Your task to perform on an android device: Open Google Maps Image 0: 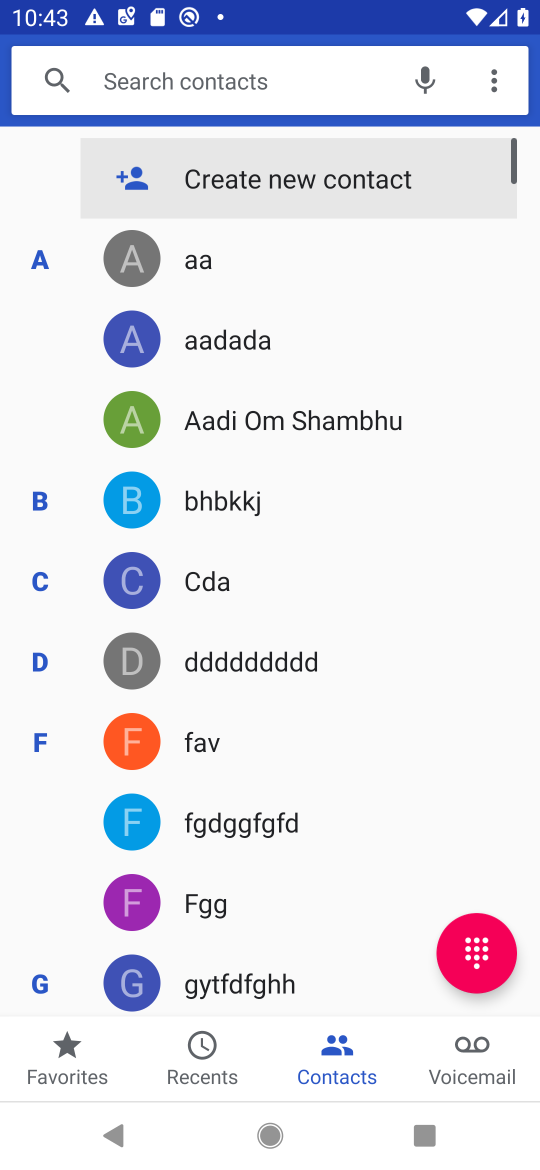
Step 0: press home button
Your task to perform on an android device: Open Google Maps Image 1: 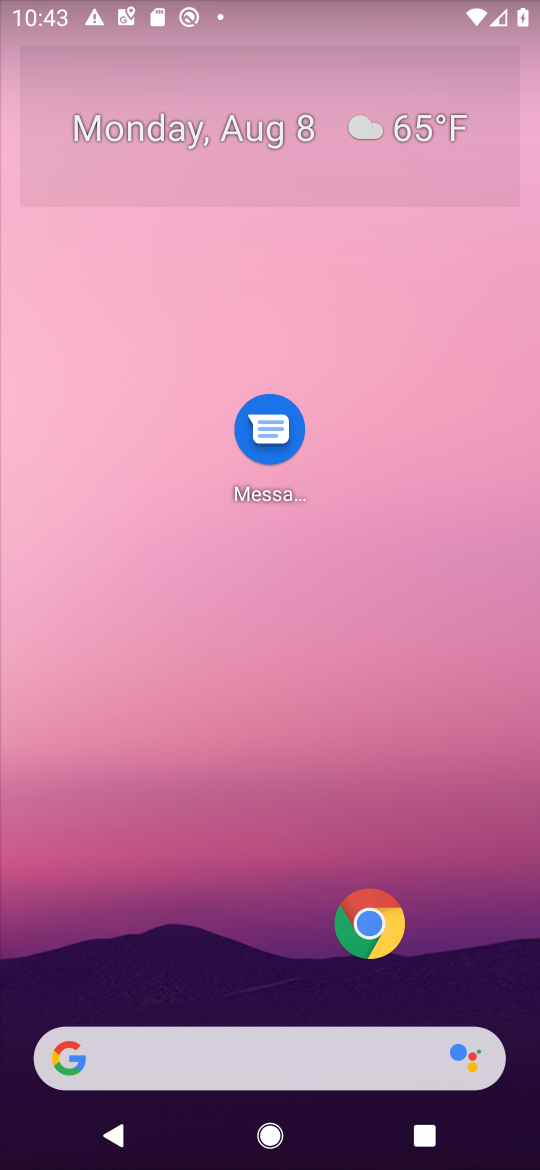
Step 1: drag from (92, 1088) to (505, 329)
Your task to perform on an android device: Open Google Maps Image 2: 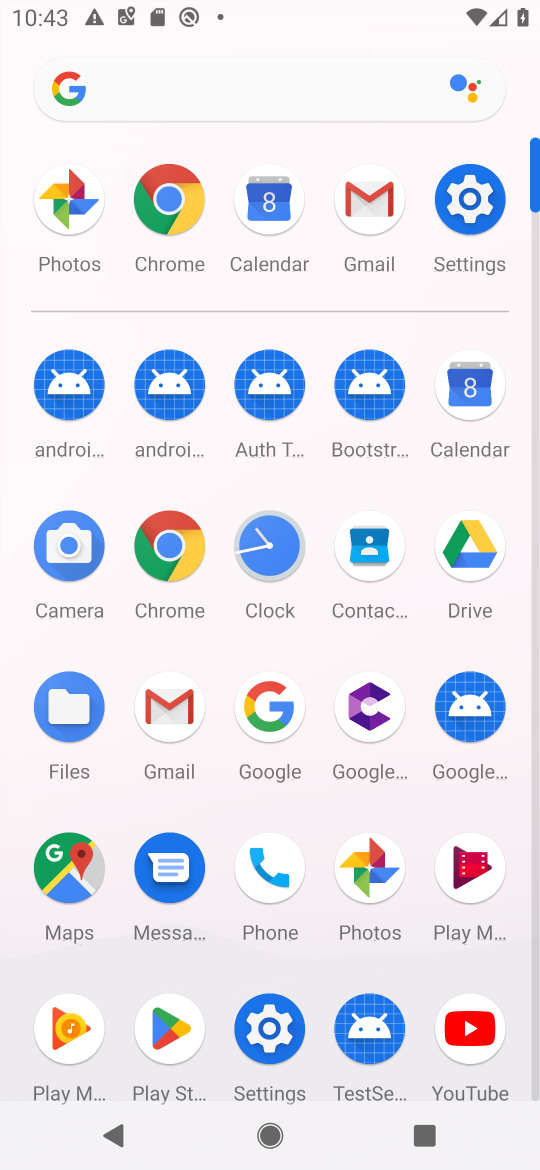
Step 2: click (50, 866)
Your task to perform on an android device: Open Google Maps Image 3: 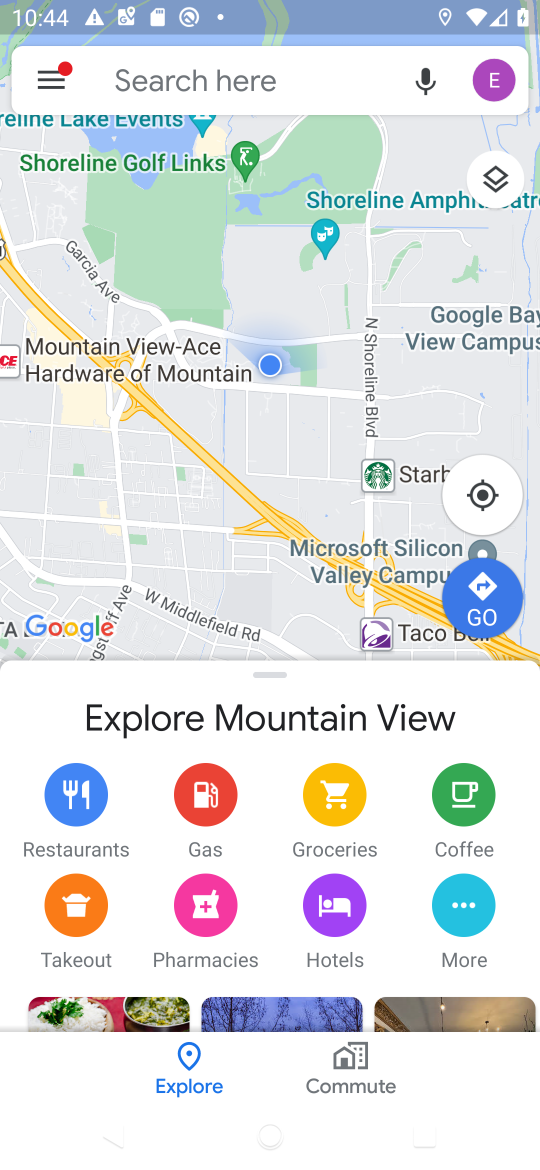
Step 3: task complete